Your task to perform on an android device: open app "Pandora - Music & Podcasts" Image 0: 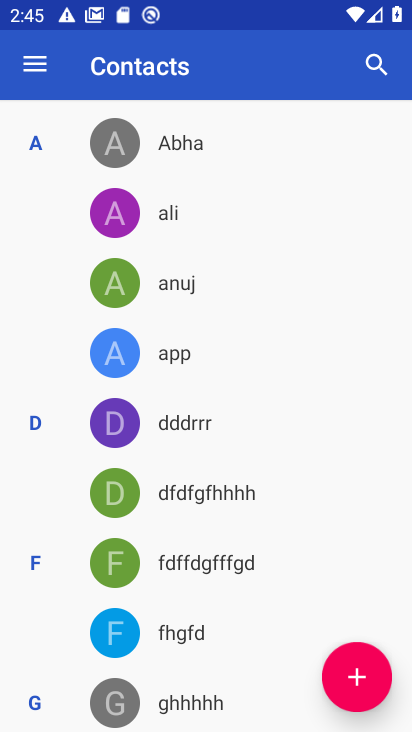
Step 0: press home button
Your task to perform on an android device: open app "Pandora - Music & Podcasts" Image 1: 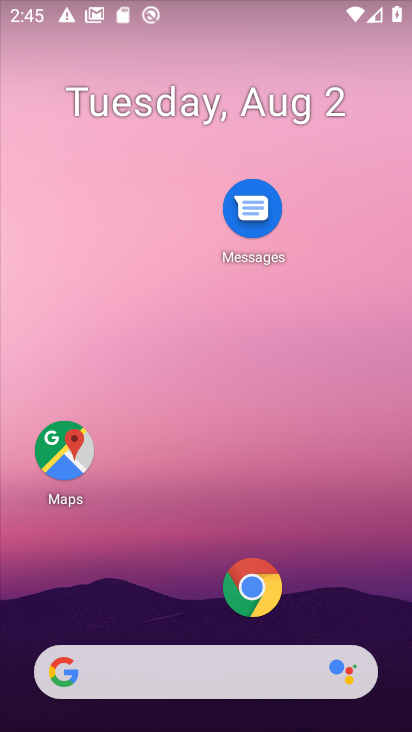
Step 1: drag from (170, 584) to (155, 216)
Your task to perform on an android device: open app "Pandora - Music & Podcasts" Image 2: 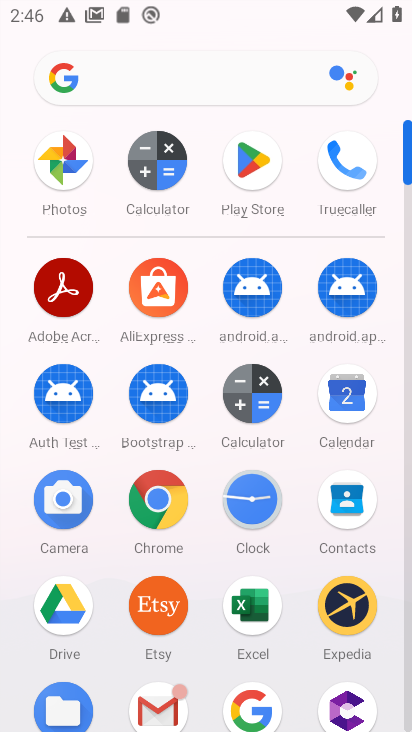
Step 2: click (240, 173)
Your task to perform on an android device: open app "Pandora - Music & Podcasts" Image 3: 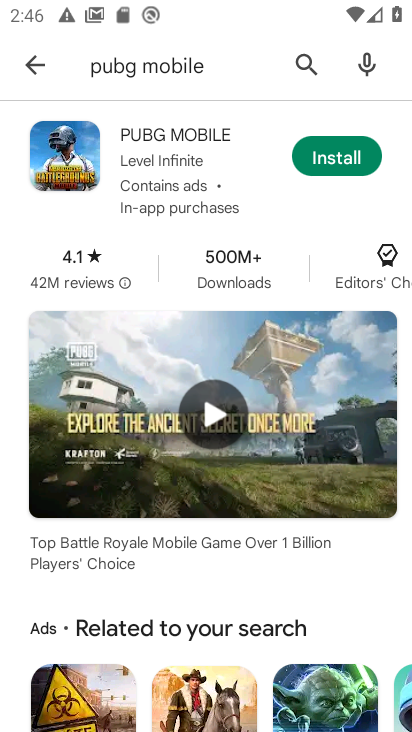
Step 3: click (308, 65)
Your task to perform on an android device: open app "Pandora - Music & Podcasts" Image 4: 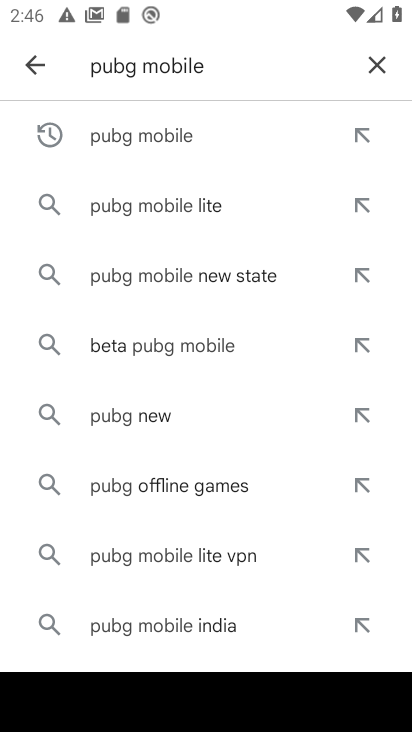
Step 4: click (392, 59)
Your task to perform on an android device: open app "Pandora - Music & Podcasts" Image 5: 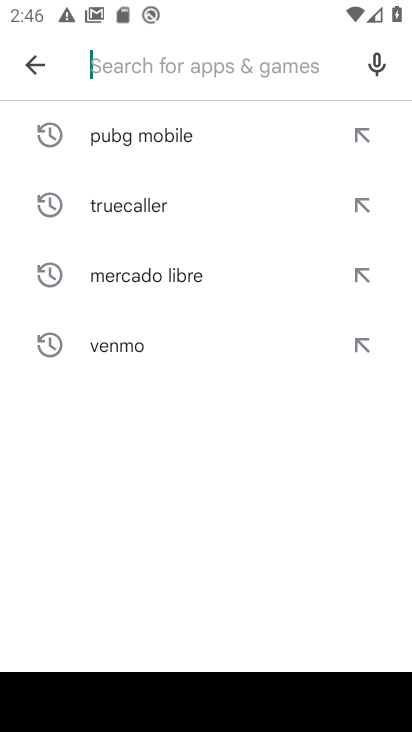
Step 5: type "Pandora - Music & Podcasts"
Your task to perform on an android device: open app "Pandora - Music & Podcasts" Image 6: 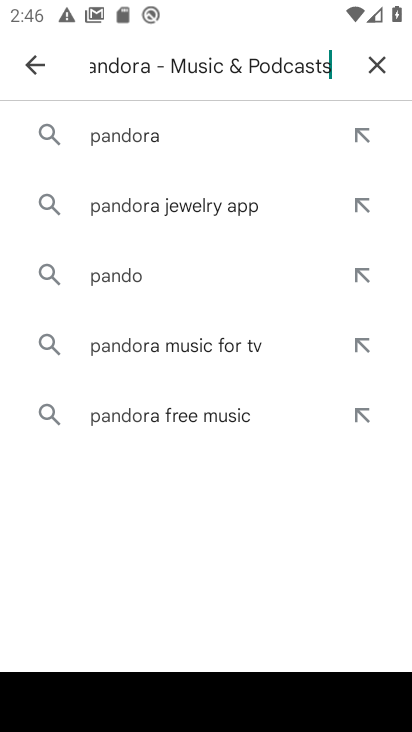
Step 6: type ""
Your task to perform on an android device: open app "Pandora - Music & Podcasts" Image 7: 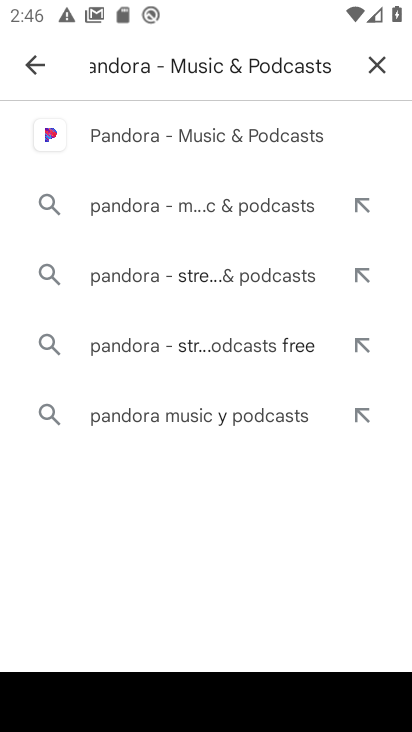
Step 7: click (219, 139)
Your task to perform on an android device: open app "Pandora - Music & Podcasts" Image 8: 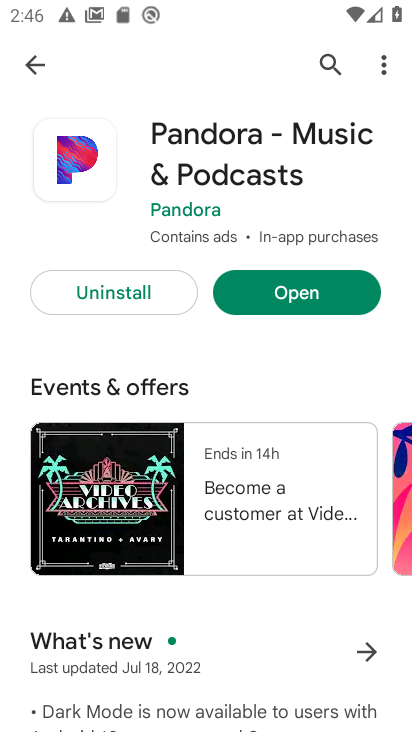
Step 8: click (253, 297)
Your task to perform on an android device: open app "Pandora - Music & Podcasts" Image 9: 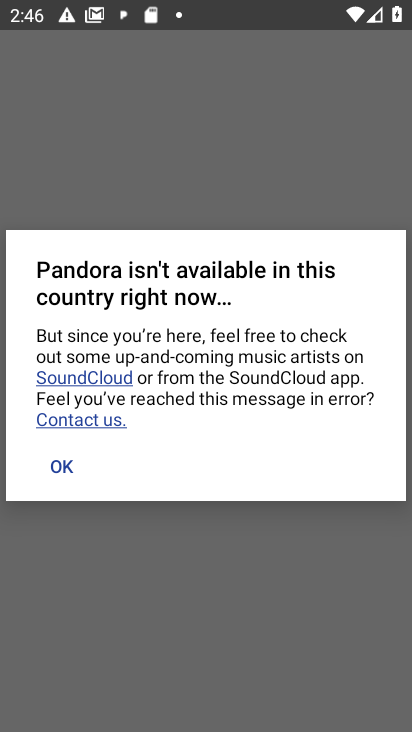
Step 9: task complete